Your task to perform on an android device: check storage Image 0: 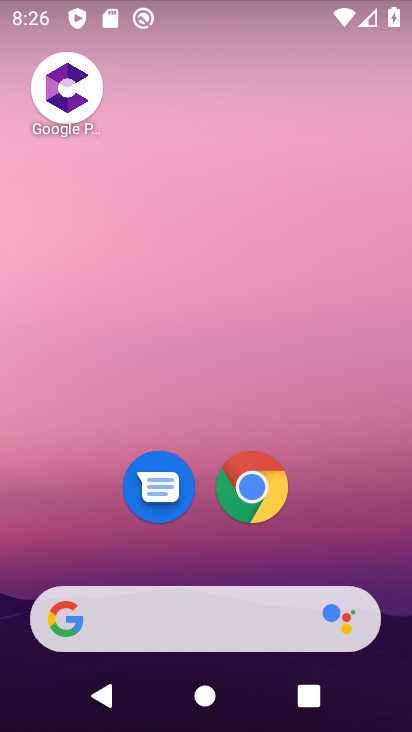
Step 0: drag from (269, 559) to (280, 179)
Your task to perform on an android device: check storage Image 1: 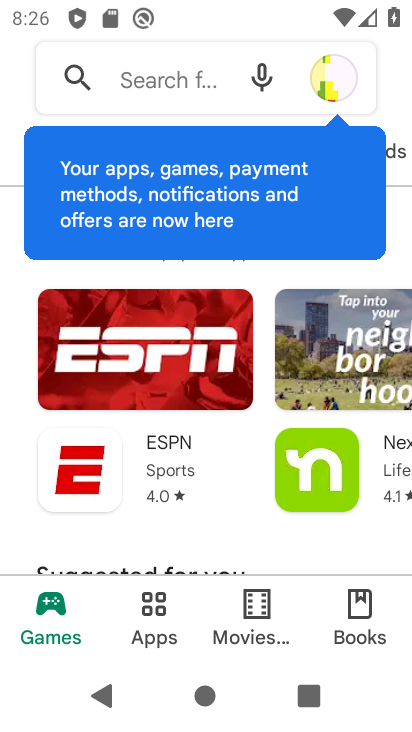
Step 1: press home button
Your task to perform on an android device: check storage Image 2: 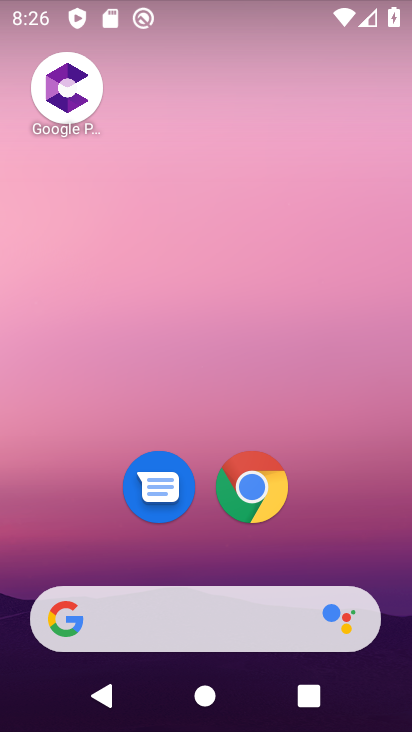
Step 2: drag from (231, 597) to (229, 99)
Your task to perform on an android device: check storage Image 3: 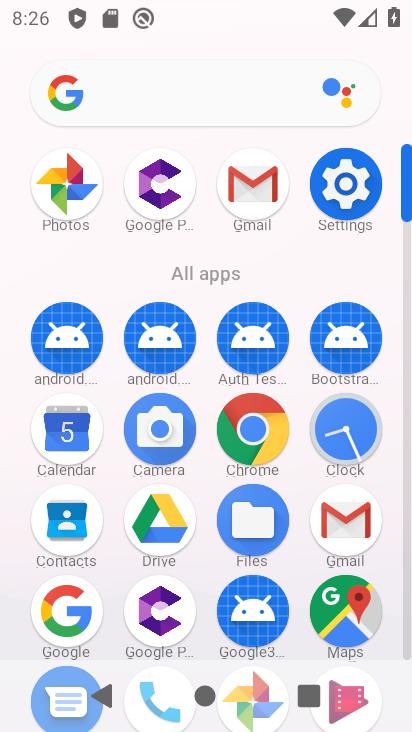
Step 3: click (352, 192)
Your task to perform on an android device: check storage Image 4: 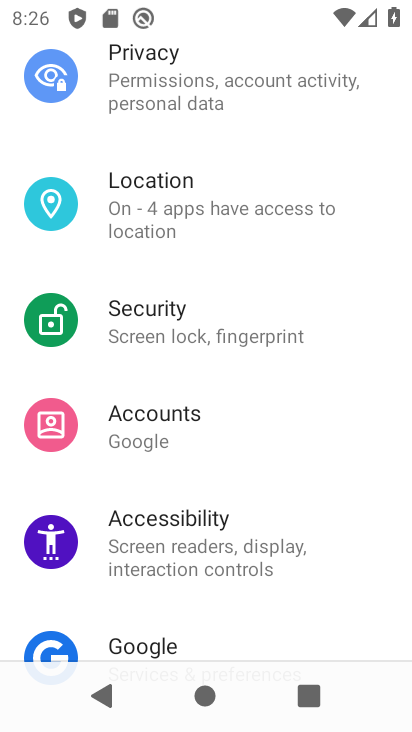
Step 4: drag from (241, 345) to (240, 638)
Your task to perform on an android device: check storage Image 5: 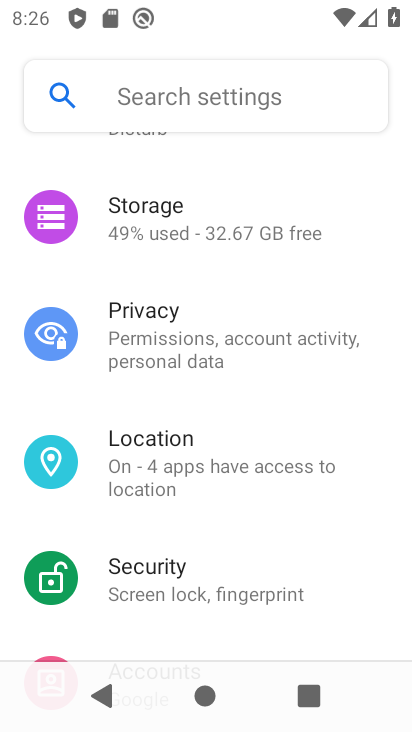
Step 5: click (250, 236)
Your task to perform on an android device: check storage Image 6: 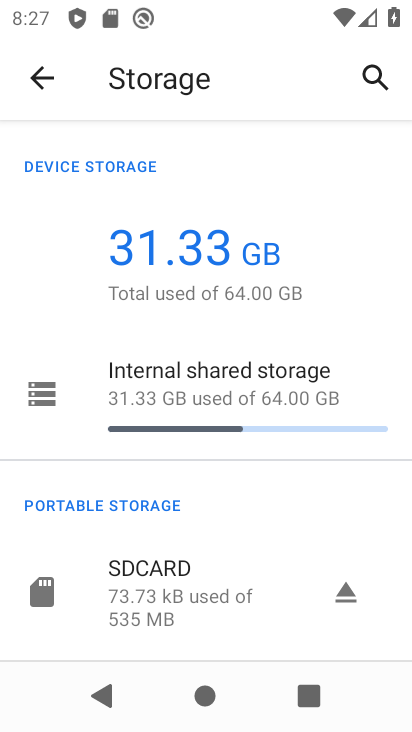
Step 6: click (262, 406)
Your task to perform on an android device: check storage Image 7: 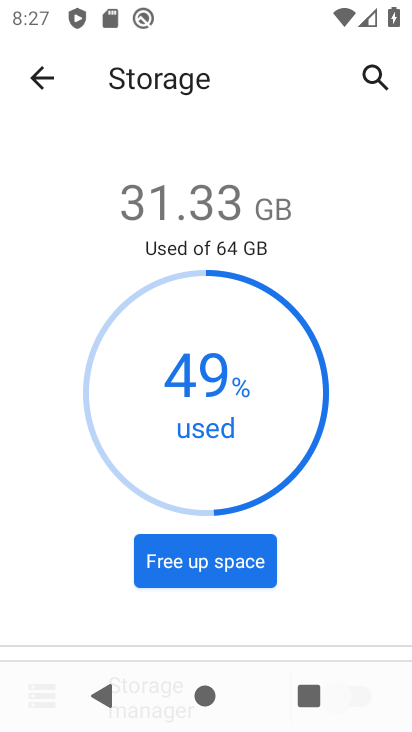
Step 7: task complete